Your task to perform on an android device: open device folders in google photos Image 0: 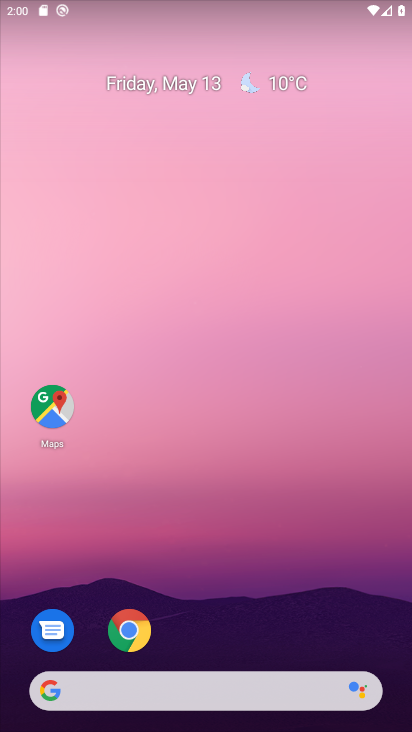
Step 0: drag from (217, 641) to (251, 134)
Your task to perform on an android device: open device folders in google photos Image 1: 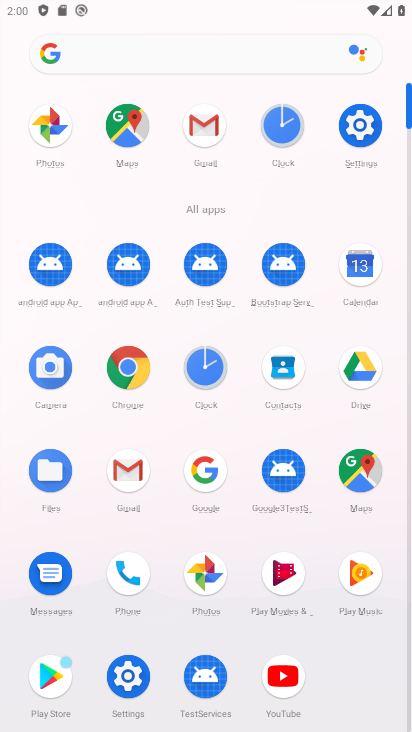
Step 1: click (200, 564)
Your task to perform on an android device: open device folders in google photos Image 2: 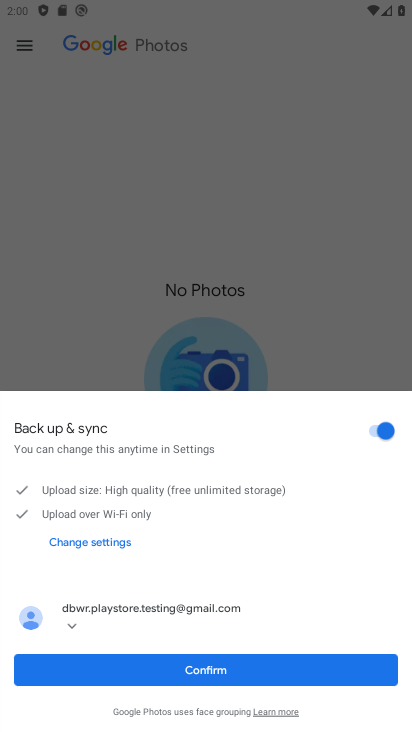
Step 2: click (210, 664)
Your task to perform on an android device: open device folders in google photos Image 3: 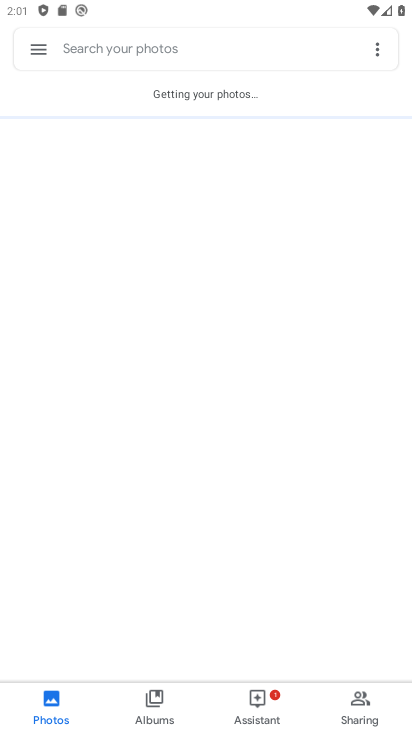
Step 3: click (118, 43)
Your task to perform on an android device: open device folders in google photos Image 4: 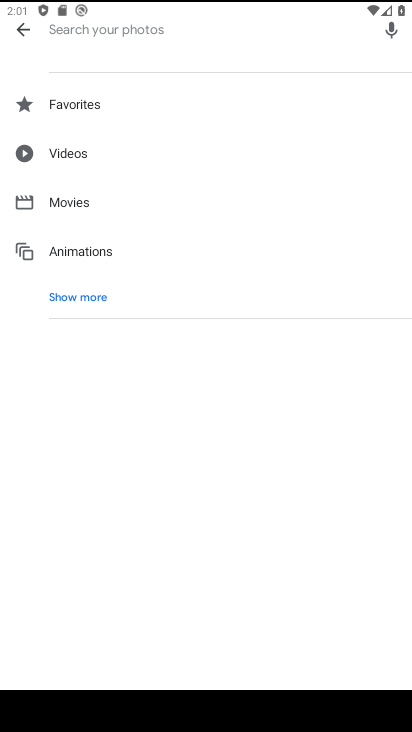
Step 4: click (120, 23)
Your task to perform on an android device: open device folders in google photos Image 5: 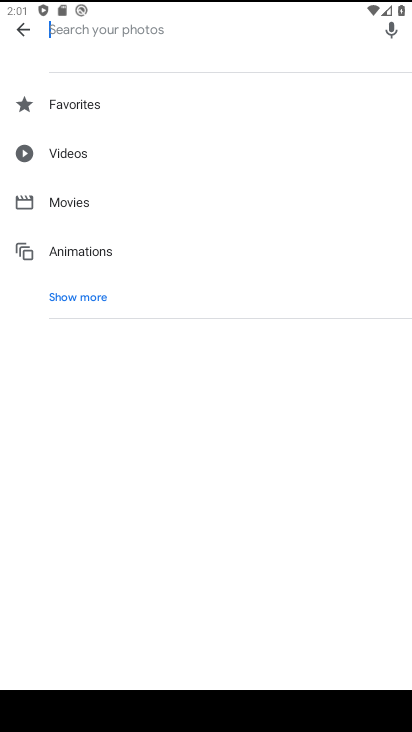
Step 5: type "device"
Your task to perform on an android device: open device folders in google photos Image 6: 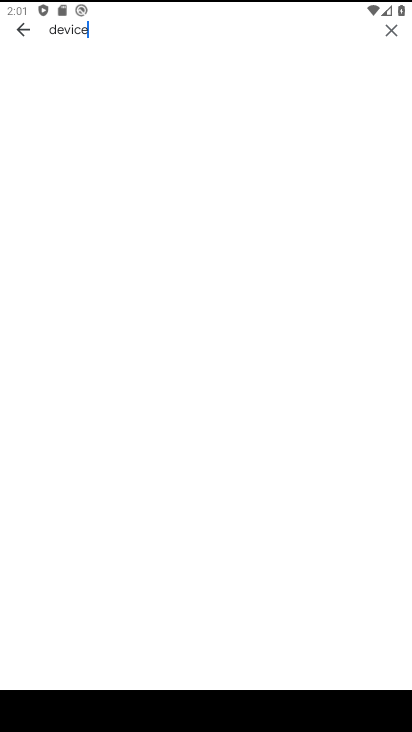
Step 6: click (27, 25)
Your task to perform on an android device: open device folders in google photos Image 7: 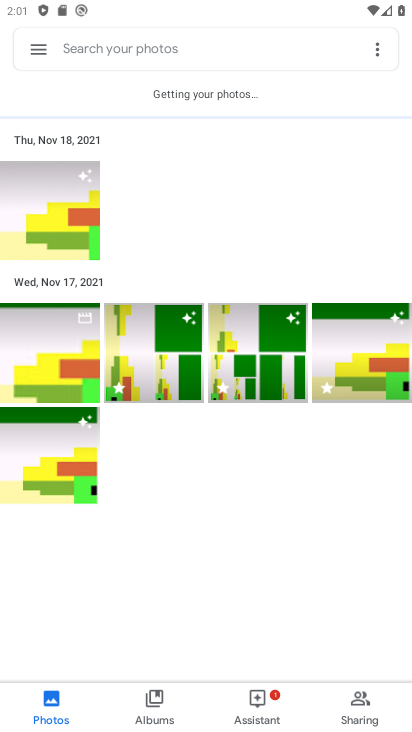
Step 7: click (350, 704)
Your task to perform on an android device: open device folders in google photos Image 8: 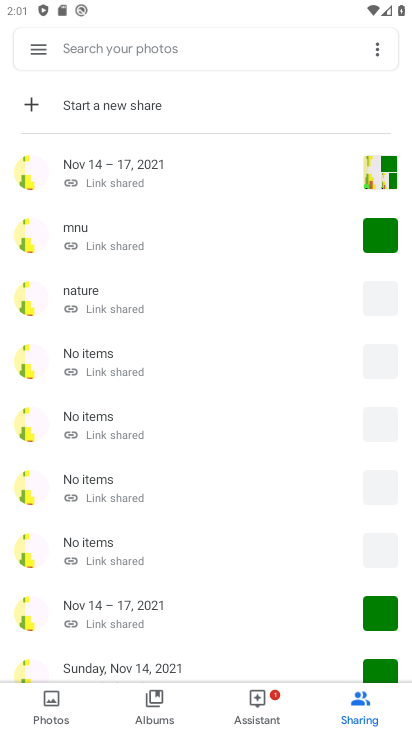
Step 8: click (268, 701)
Your task to perform on an android device: open device folders in google photos Image 9: 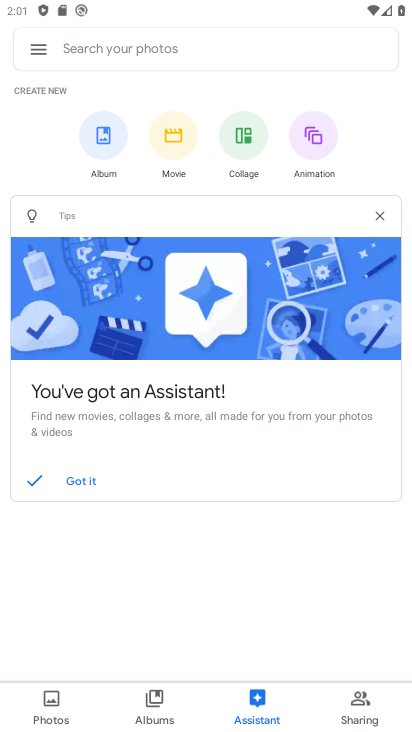
Step 9: drag from (220, 588) to (227, 222)
Your task to perform on an android device: open device folders in google photos Image 10: 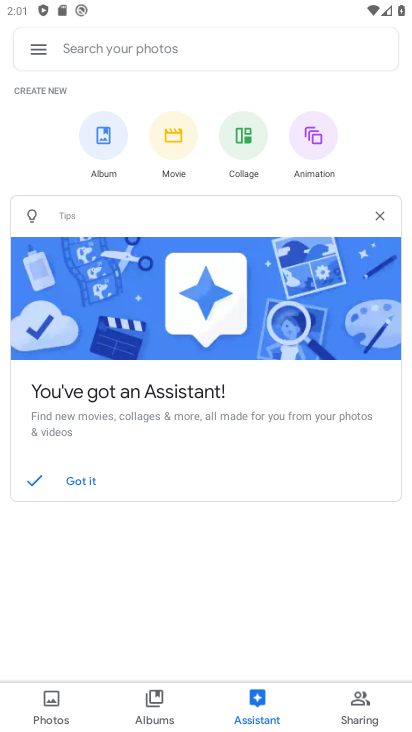
Step 10: drag from (141, 593) to (158, 234)
Your task to perform on an android device: open device folders in google photos Image 11: 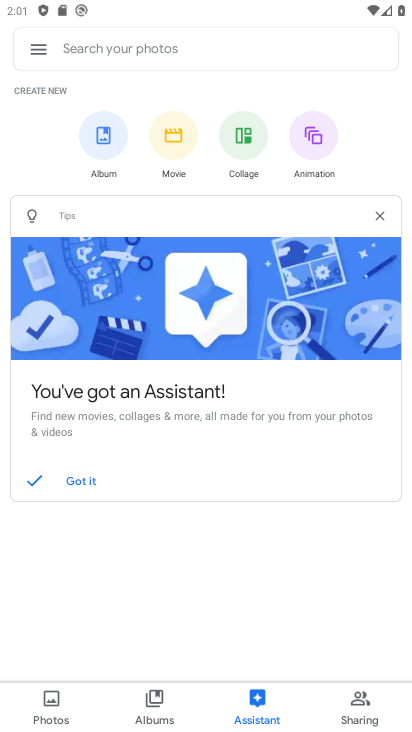
Step 11: click (151, 703)
Your task to perform on an android device: open device folders in google photos Image 12: 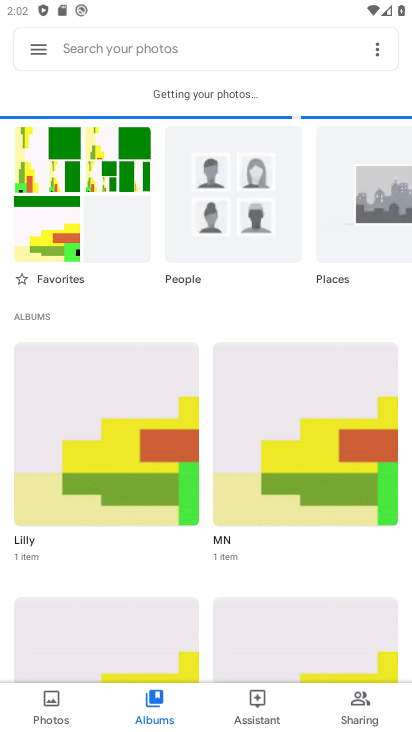
Step 12: click (40, 706)
Your task to perform on an android device: open device folders in google photos Image 13: 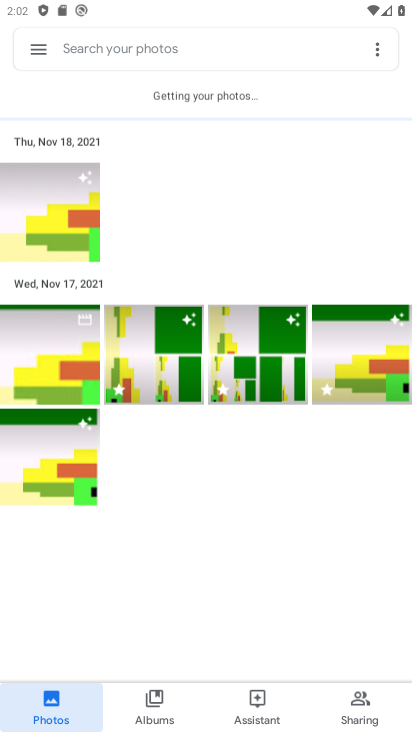
Step 13: click (38, 43)
Your task to perform on an android device: open device folders in google photos Image 14: 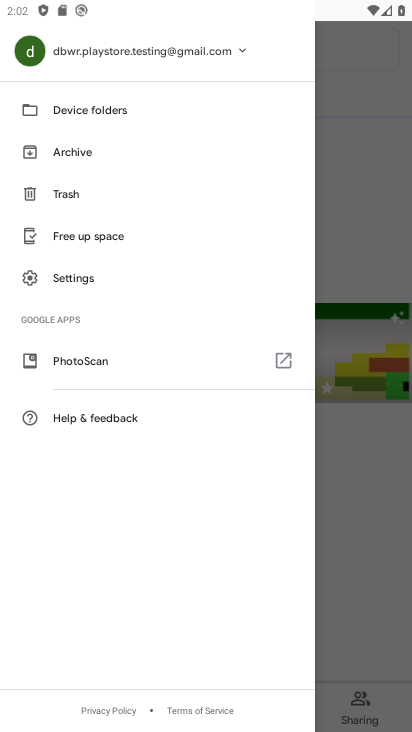
Step 14: click (84, 114)
Your task to perform on an android device: open device folders in google photos Image 15: 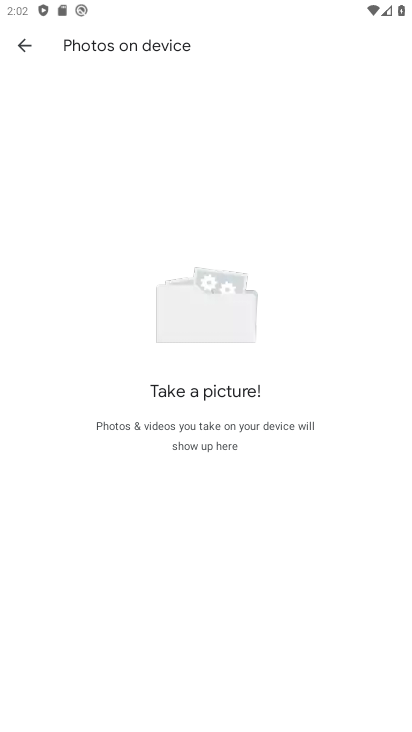
Step 15: task complete